Your task to perform on an android device: Go to CNN.com Image 0: 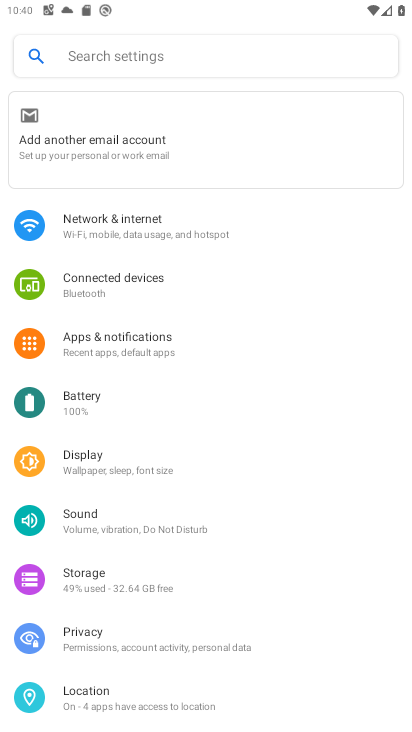
Step 0: press home button
Your task to perform on an android device: Go to CNN.com Image 1: 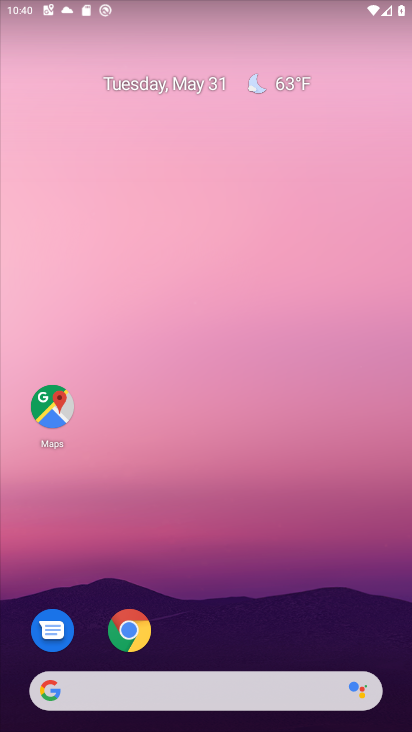
Step 1: click (125, 626)
Your task to perform on an android device: Go to CNN.com Image 2: 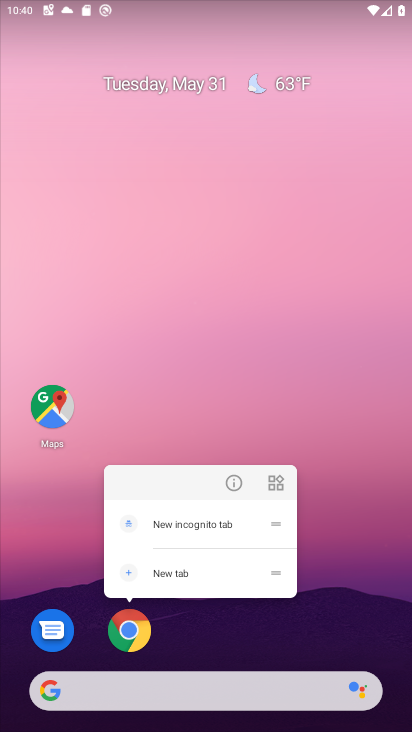
Step 2: click (131, 627)
Your task to perform on an android device: Go to CNN.com Image 3: 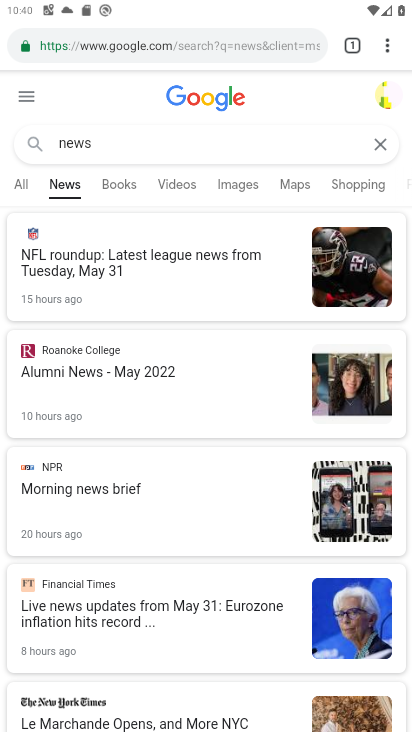
Step 3: click (126, 41)
Your task to perform on an android device: Go to CNN.com Image 4: 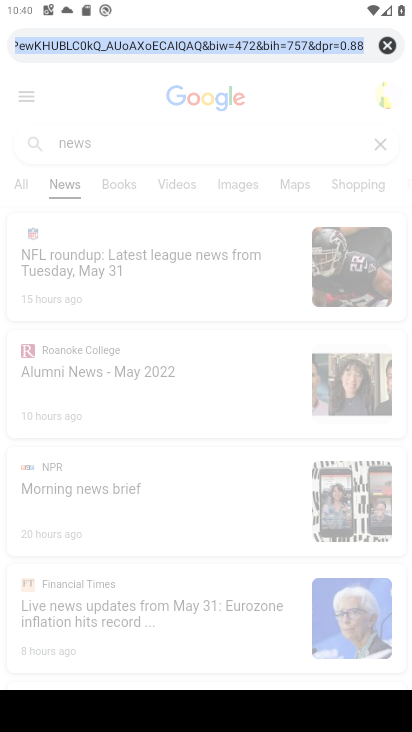
Step 4: type "cnn.com"
Your task to perform on an android device: Go to CNN.com Image 5: 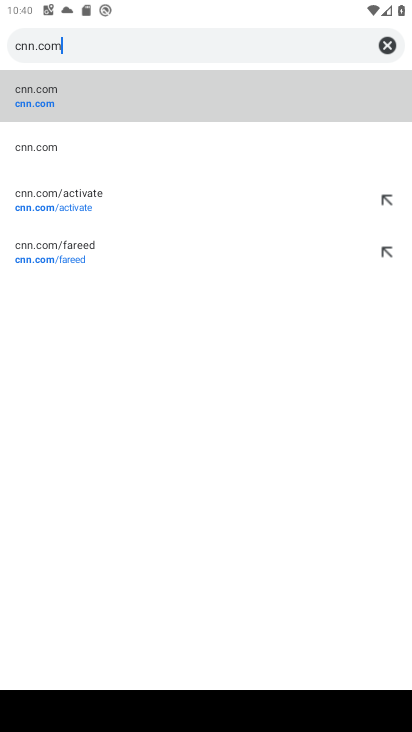
Step 5: click (31, 94)
Your task to perform on an android device: Go to CNN.com Image 6: 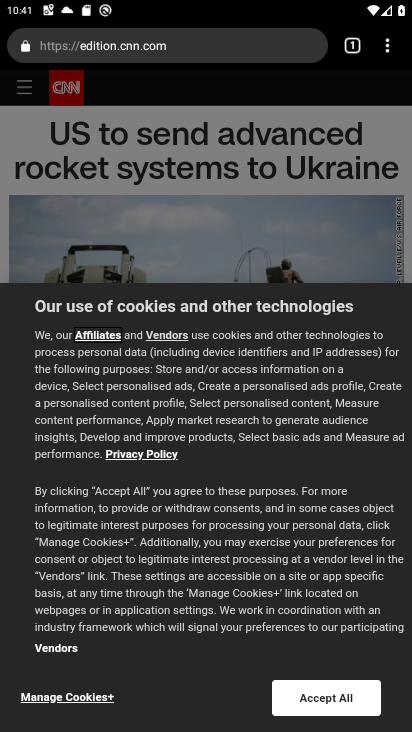
Step 6: task complete